Your task to perform on an android device: change the clock display to analog Image 0: 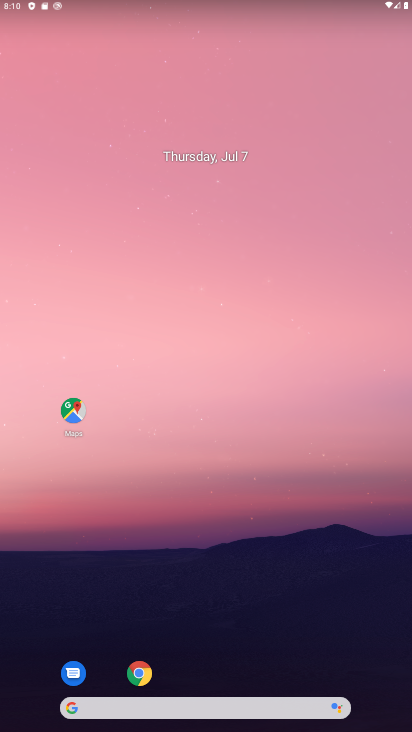
Step 0: drag from (224, 674) to (209, 37)
Your task to perform on an android device: change the clock display to analog Image 1: 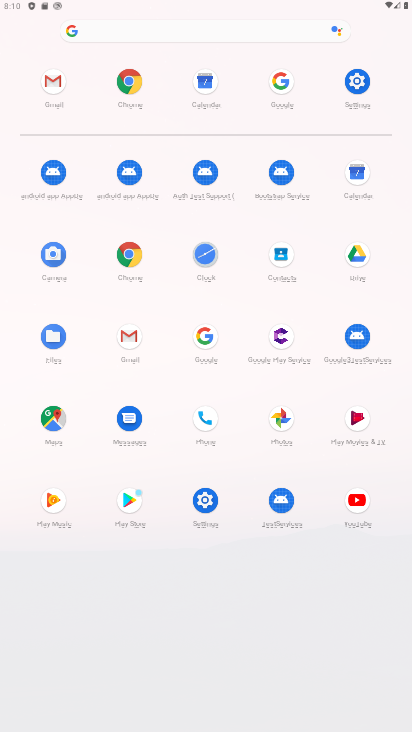
Step 1: click (207, 251)
Your task to perform on an android device: change the clock display to analog Image 2: 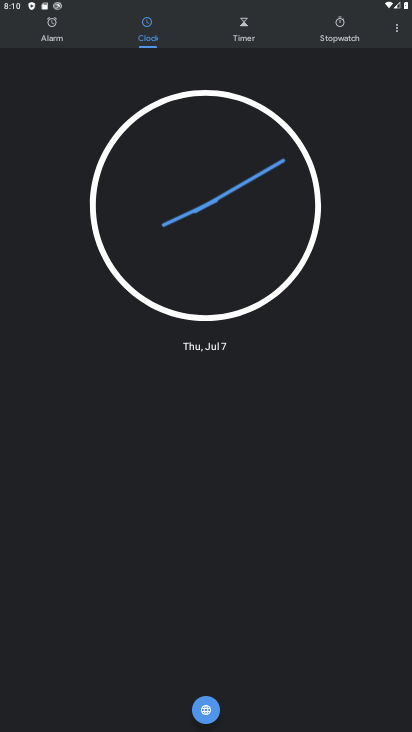
Step 2: click (396, 30)
Your task to perform on an android device: change the clock display to analog Image 3: 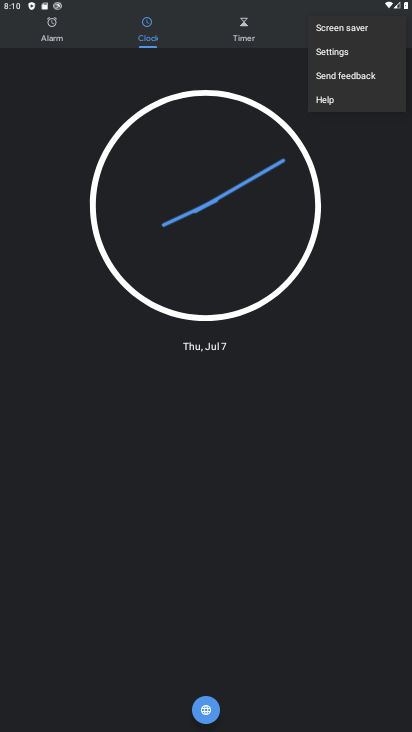
Step 3: click (342, 56)
Your task to perform on an android device: change the clock display to analog Image 4: 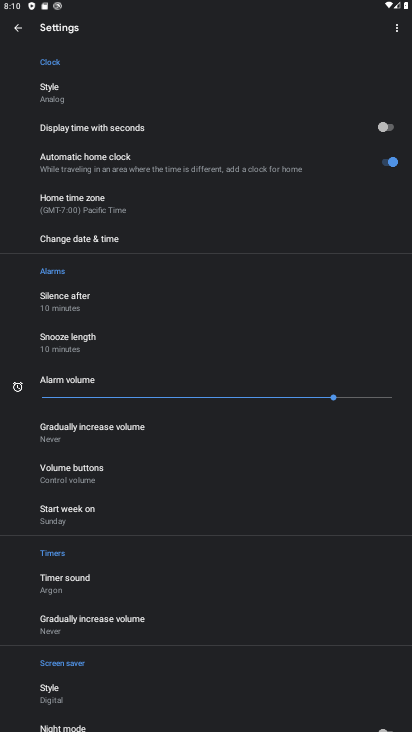
Step 4: click (44, 100)
Your task to perform on an android device: change the clock display to analog Image 5: 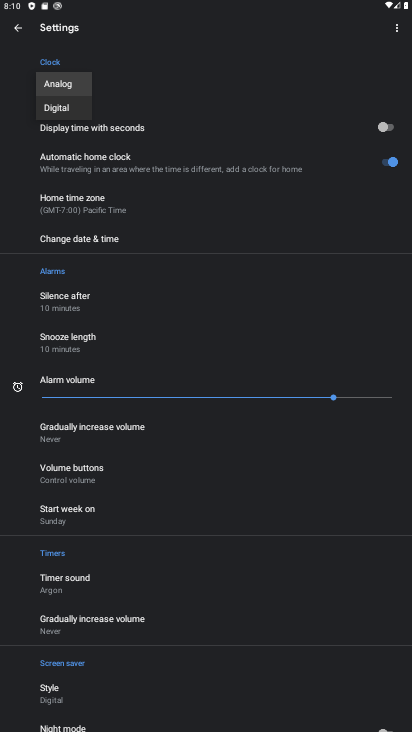
Step 5: click (50, 82)
Your task to perform on an android device: change the clock display to analog Image 6: 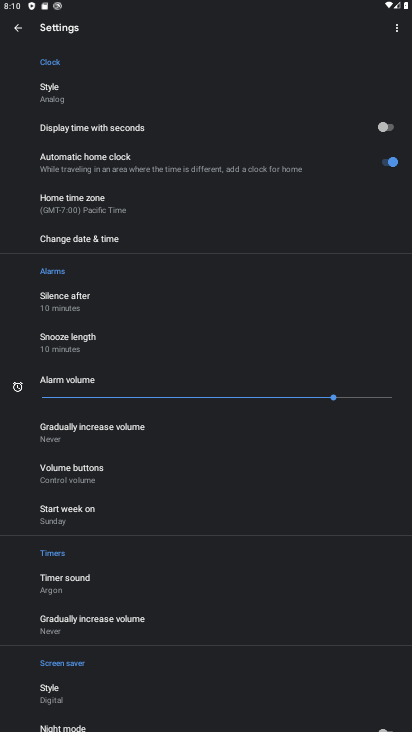
Step 6: task complete